Your task to perform on an android device: find which apps use the phone's location Image 0: 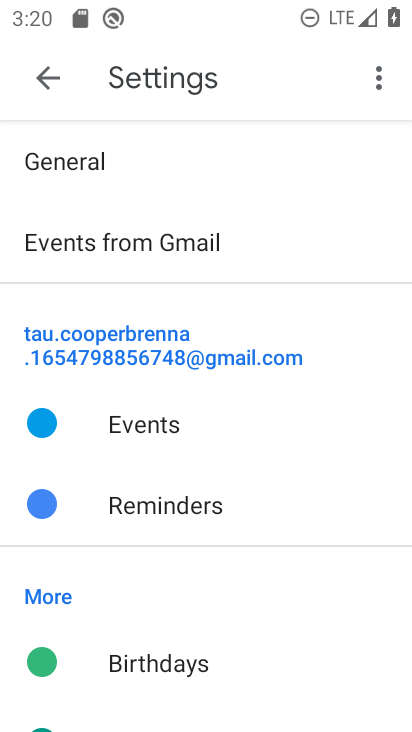
Step 0: press home button
Your task to perform on an android device: find which apps use the phone's location Image 1: 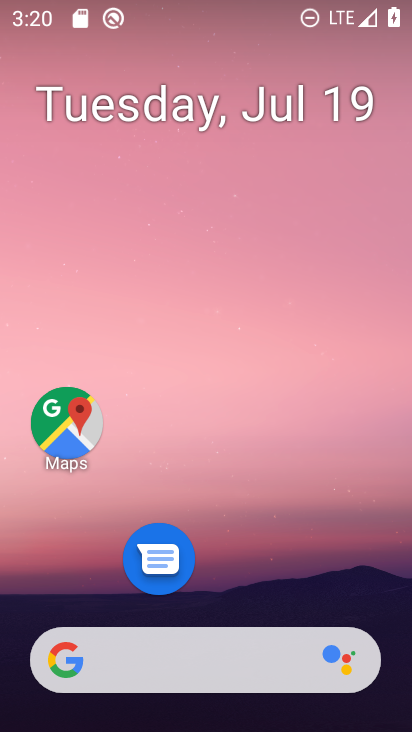
Step 1: drag from (202, 335) to (213, 284)
Your task to perform on an android device: find which apps use the phone's location Image 2: 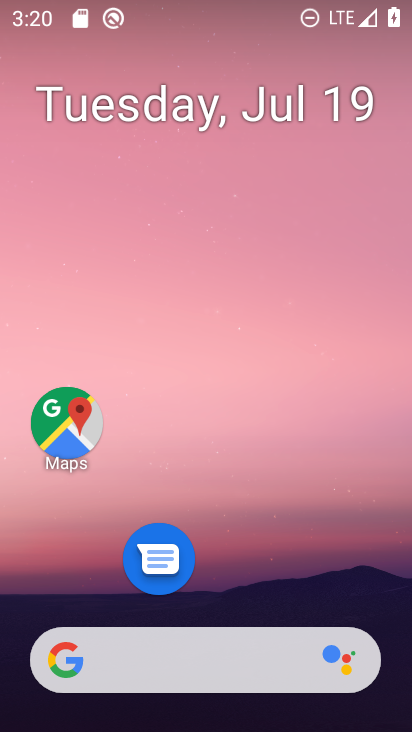
Step 2: drag from (192, 516) to (198, 139)
Your task to perform on an android device: find which apps use the phone's location Image 3: 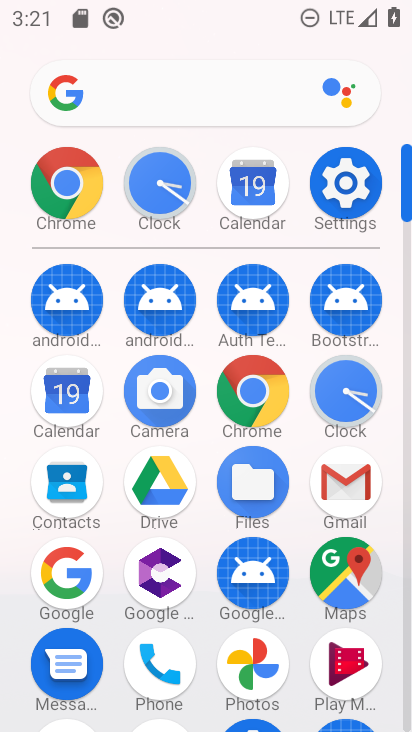
Step 3: click (337, 190)
Your task to perform on an android device: find which apps use the phone's location Image 4: 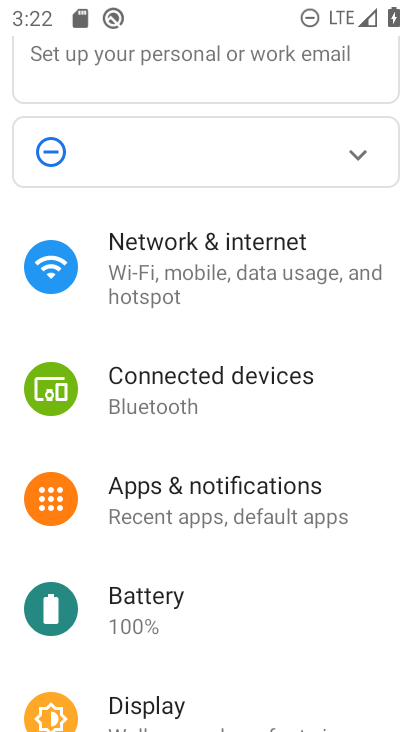
Step 4: drag from (190, 510) to (228, 236)
Your task to perform on an android device: find which apps use the phone's location Image 5: 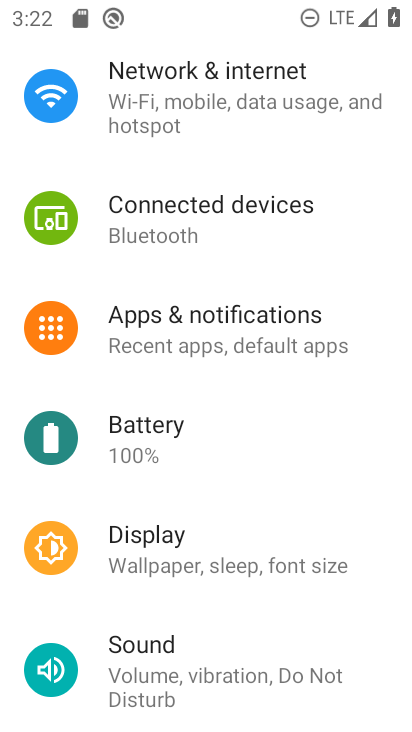
Step 5: drag from (182, 592) to (249, 198)
Your task to perform on an android device: find which apps use the phone's location Image 6: 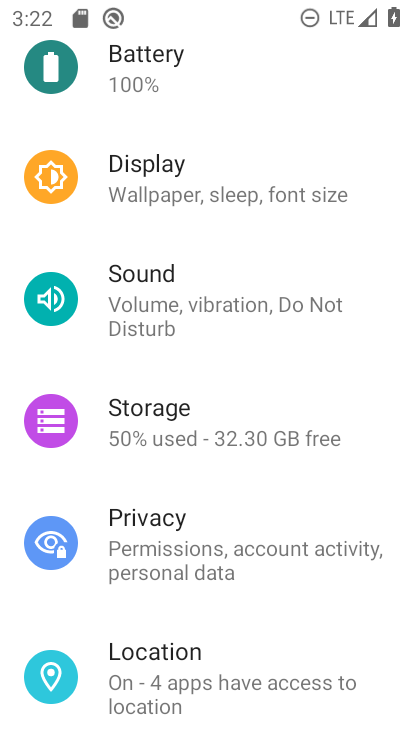
Step 6: click (146, 667)
Your task to perform on an android device: find which apps use the phone's location Image 7: 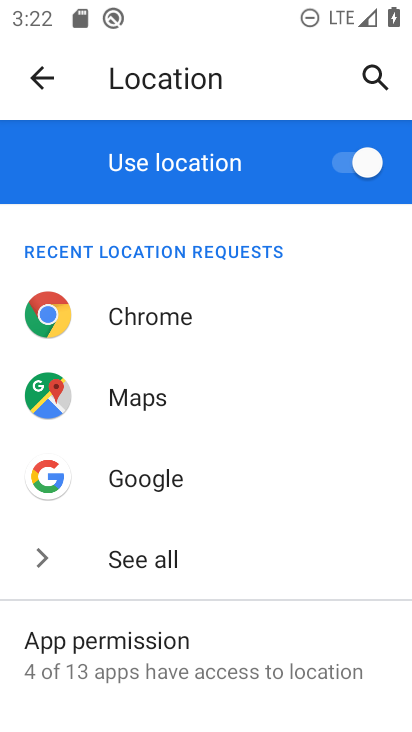
Step 7: drag from (166, 665) to (202, 526)
Your task to perform on an android device: find which apps use the phone's location Image 8: 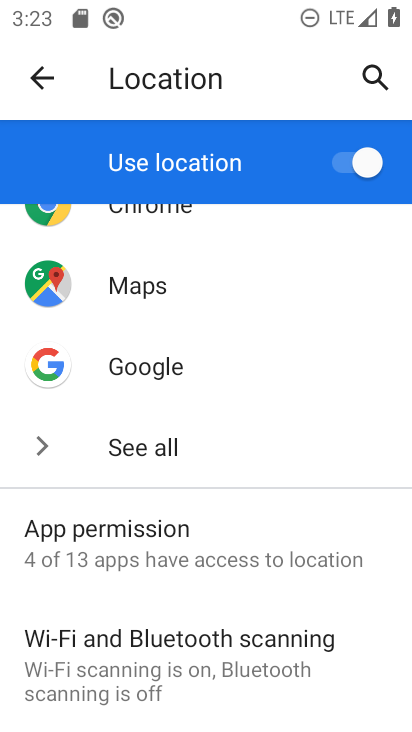
Step 8: click (183, 548)
Your task to perform on an android device: find which apps use the phone's location Image 9: 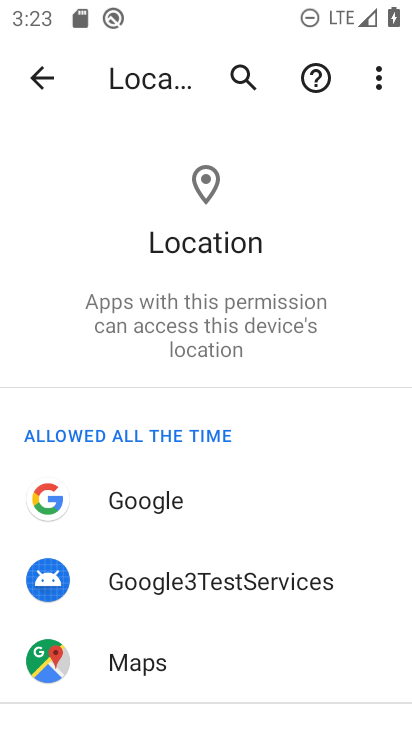
Step 9: task complete